Your task to perform on an android device: open wifi settings Image 0: 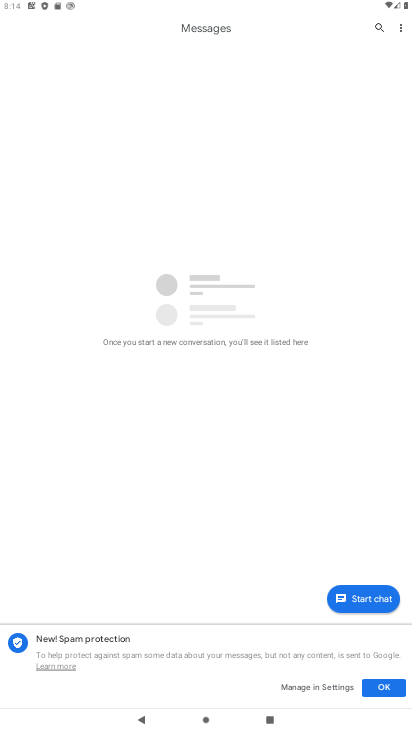
Step 0: press home button
Your task to perform on an android device: open wifi settings Image 1: 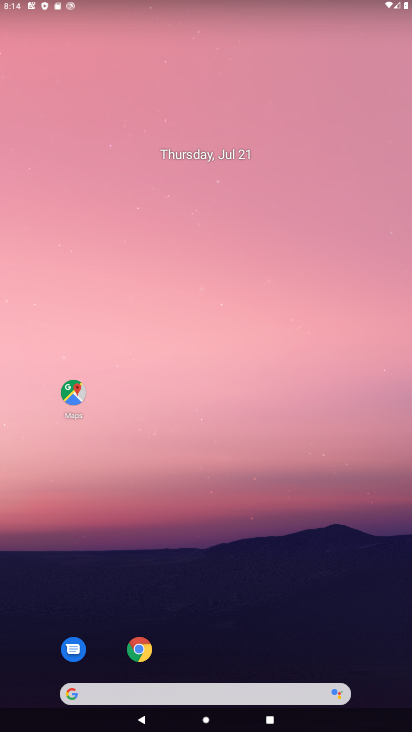
Step 1: drag from (240, 670) to (192, 29)
Your task to perform on an android device: open wifi settings Image 2: 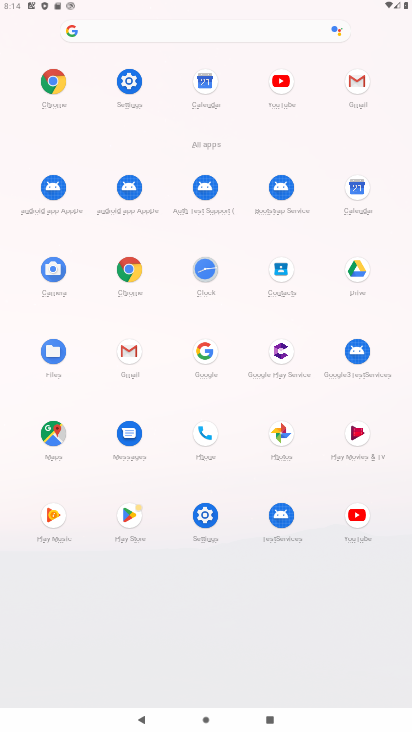
Step 2: click (221, 519)
Your task to perform on an android device: open wifi settings Image 3: 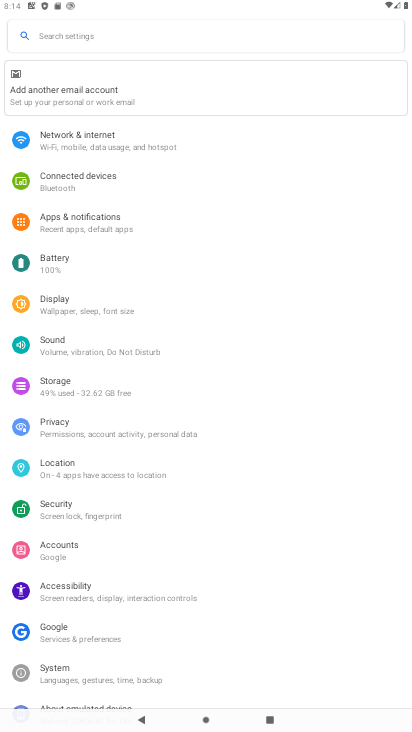
Step 3: click (106, 148)
Your task to perform on an android device: open wifi settings Image 4: 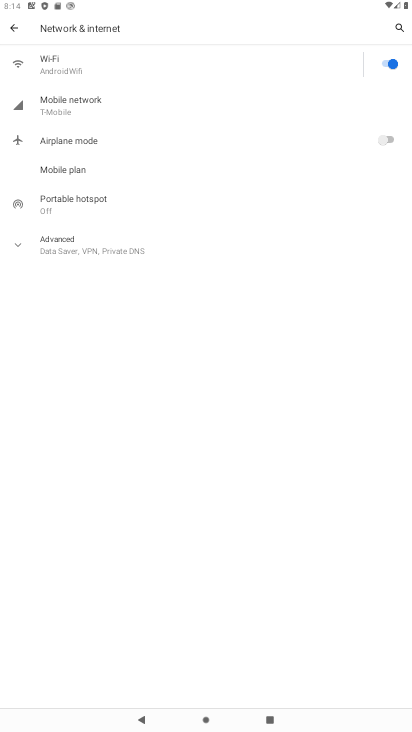
Step 4: click (105, 67)
Your task to perform on an android device: open wifi settings Image 5: 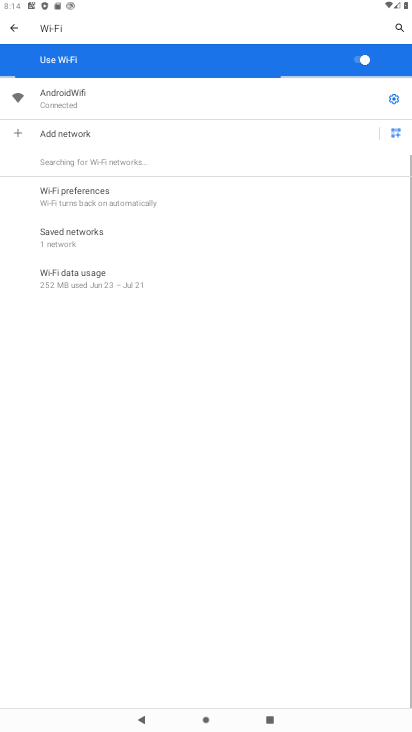
Step 5: task complete